Your task to perform on an android device: open chrome privacy settings Image 0: 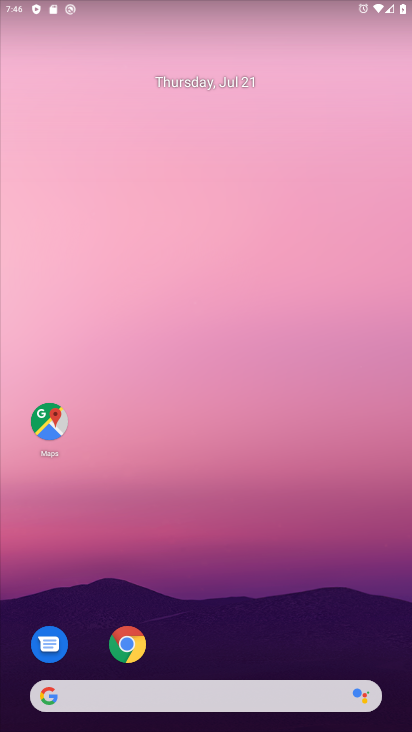
Step 0: drag from (353, 617) to (407, 115)
Your task to perform on an android device: open chrome privacy settings Image 1: 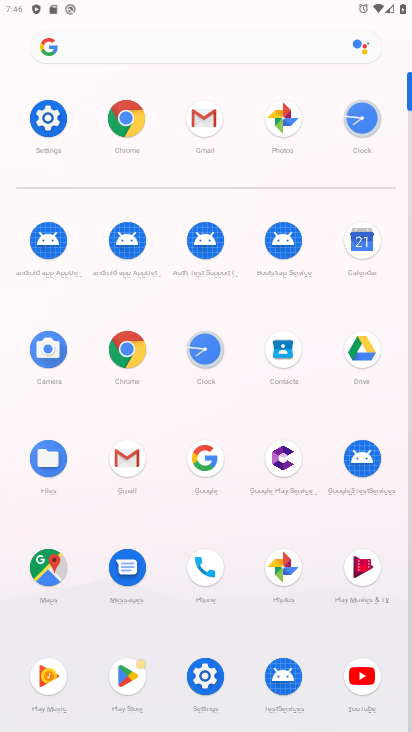
Step 1: click (127, 350)
Your task to perform on an android device: open chrome privacy settings Image 2: 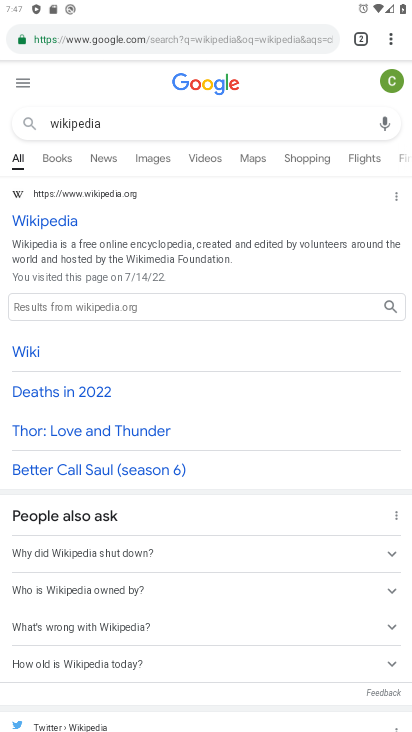
Step 2: click (389, 40)
Your task to perform on an android device: open chrome privacy settings Image 3: 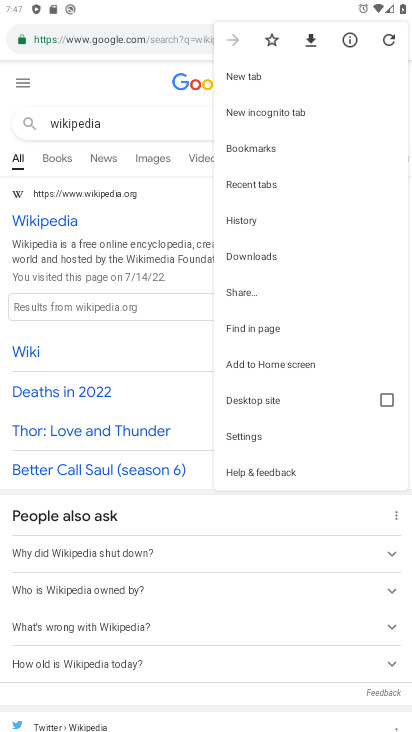
Step 3: click (258, 437)
Your task to perform on an android device: open chrome privacy settings Image 4: 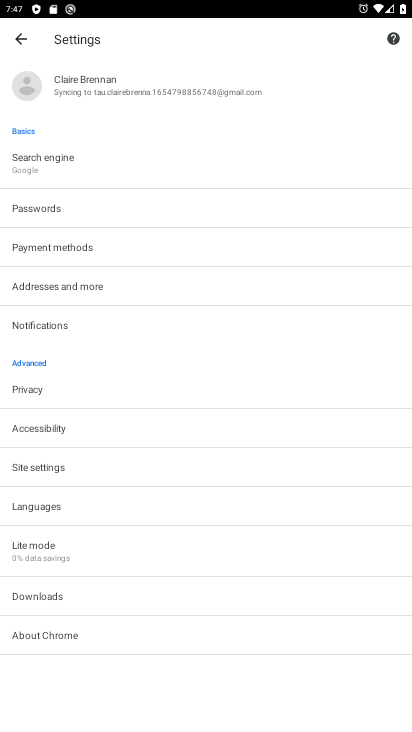
Step 4: click (203, 390)
Your task to perform on an android device: open chrome privacy settings Image 5: 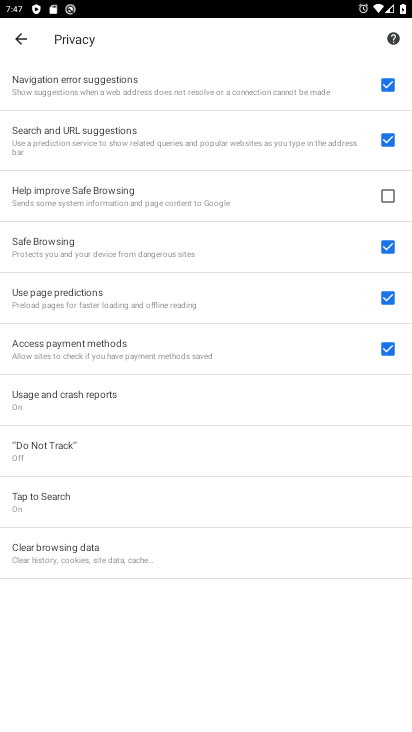
Step 5: task complete